Your task to perform on an android device: add a contact in the contacts app Image 0: 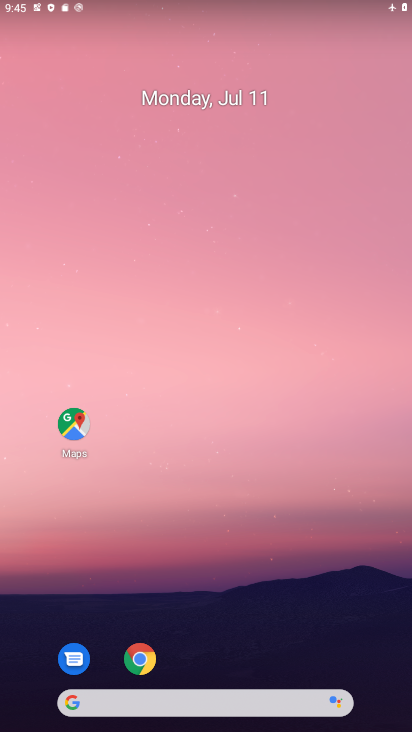
Step 0: drag from (234, 728) to (239, 166)
Your task to perform on an android device: add a contact in the contacts app Image 1: 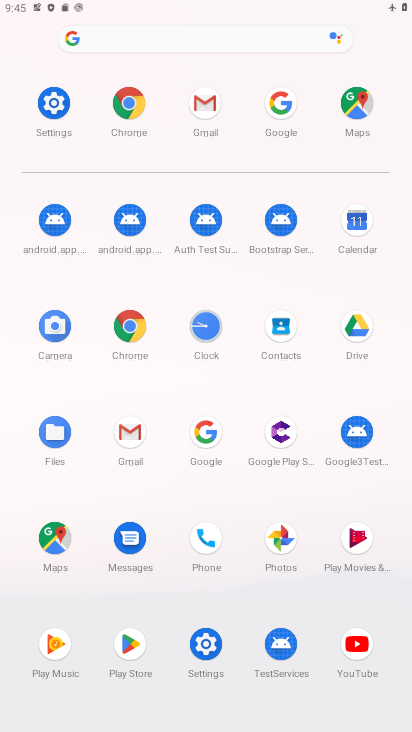
Step 1: click (276, 332)
Your task to perform on an android device: add a contact in the contacts app Image 2: 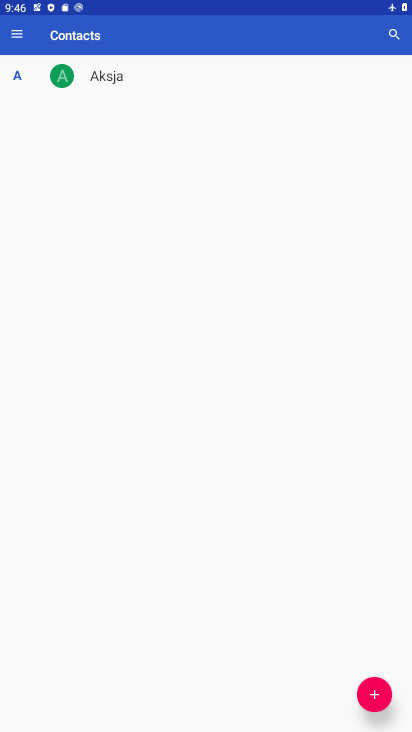
Step 2: click (376, 695)
Your task to perform on an android device: add a contact in the contacts app Image 3: 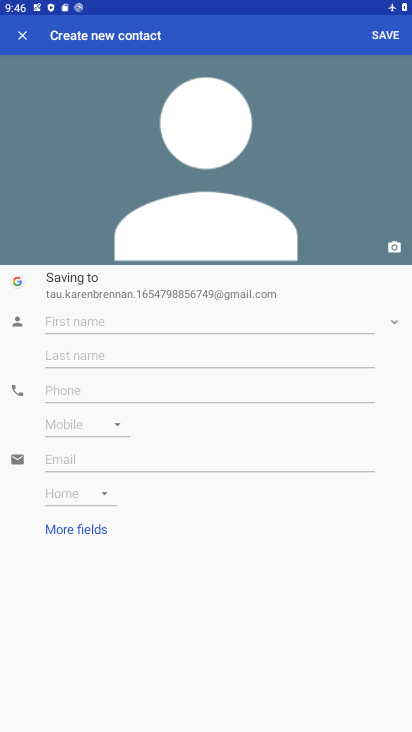
Step 3: click (85, 321)
Your task to perform on an android device: add a contact in the contacts app Image 4: 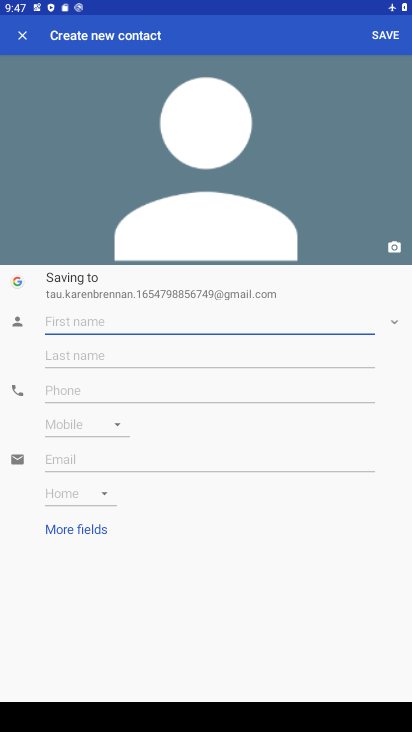
Step 4: type "vikram"
Your task to perform on an android device: add a contact in the contacts app Image 5: 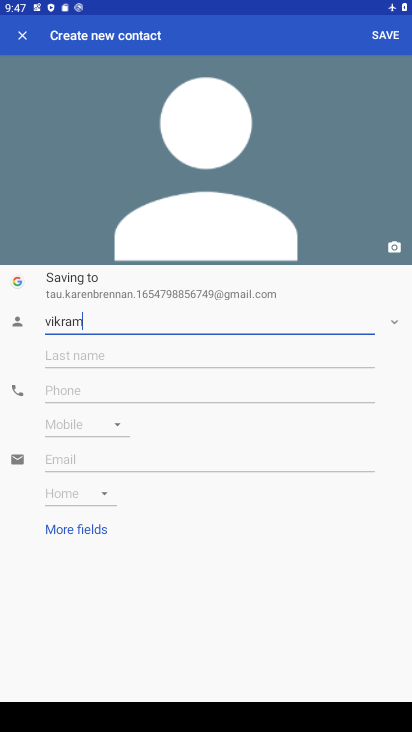
Step 5: type ""
Your task to perform on an android device: add a contact in the contacts app Image 6: 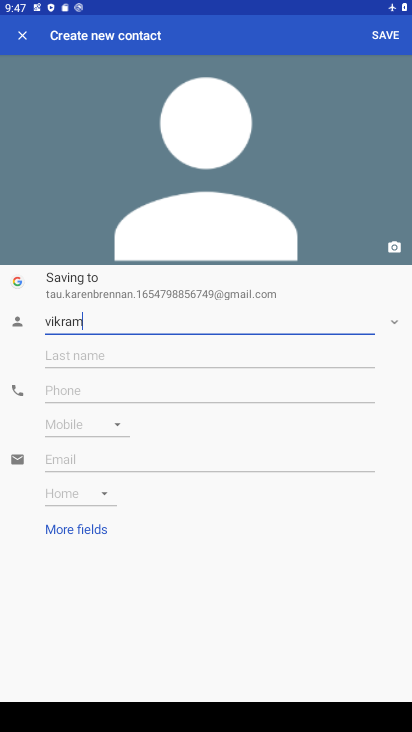
Step 6: click (75, 395)
Your task to perform on an android device: add a contact in the contacts app Image 7: 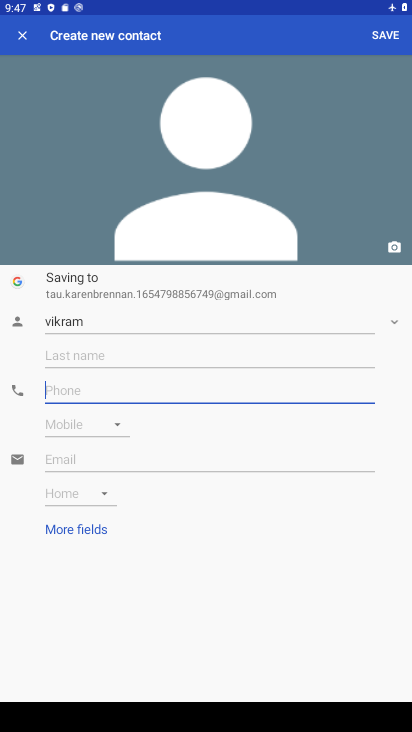
Step 7: type "67676"
Your task to perform on an android device: add a contact in the contacts app Image 8: 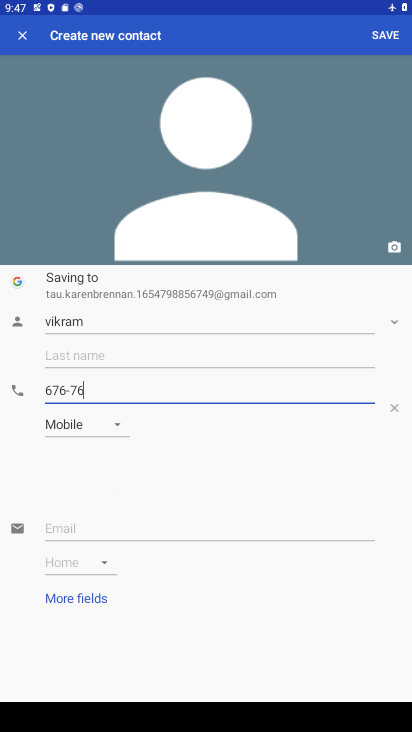
Step 8: type ""
Your task to perform on an android device: add a contact in the contacts app Image 9: 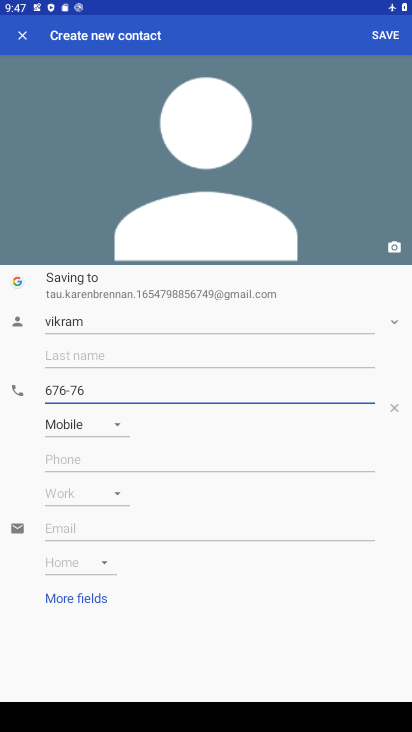
Step 9: click (382, 33)
Your task to perform on an android device: add a contact in the contacts app Image 10: 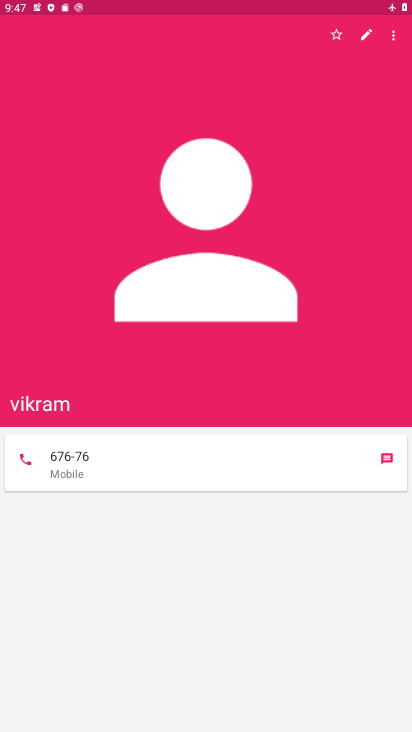
Step 10: task complete